Your task to perform on an android device: Open internet settings Image 0: 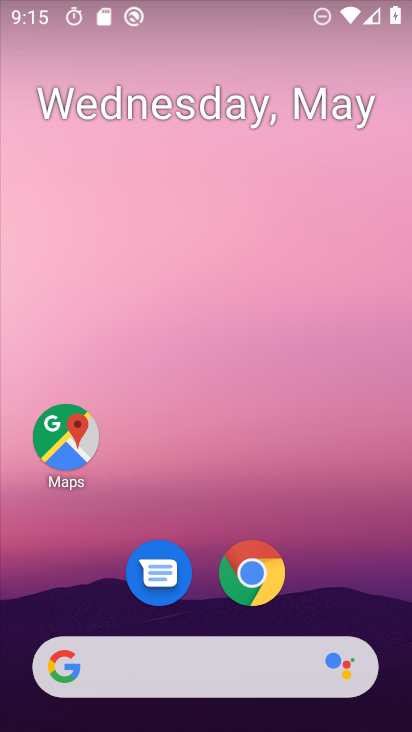
Step 0: click (358, 448)
Your task to perform on an android device: Open internet settings Image 1: 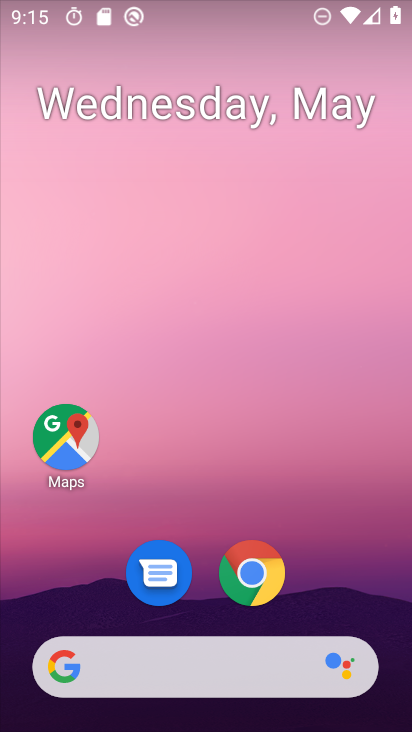
Step 1: drag from (381, 630) to (319, 300)
Your task to perform on an android device: Open internet settings Image 2: 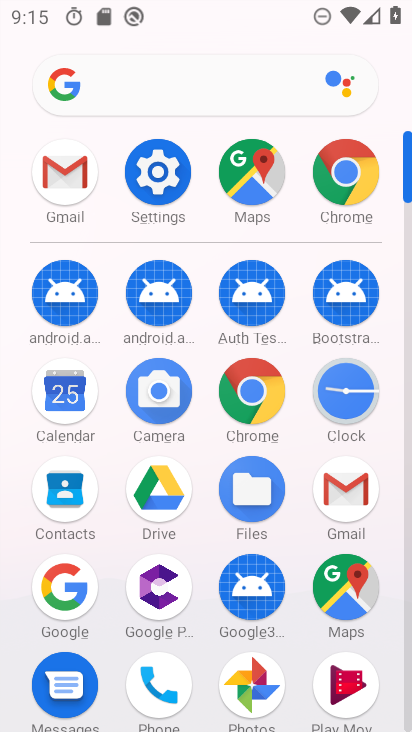
Step 2: click (175, 179)
Your task to perform on an android device: Open internet settings Image 3: 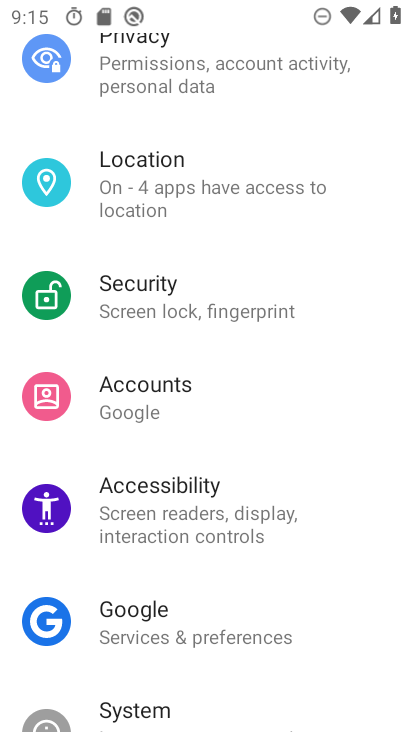
Step 3: drag from (341, 136) to (403, 572)
Your task to perform on an android device: Open internet settings Image 4: 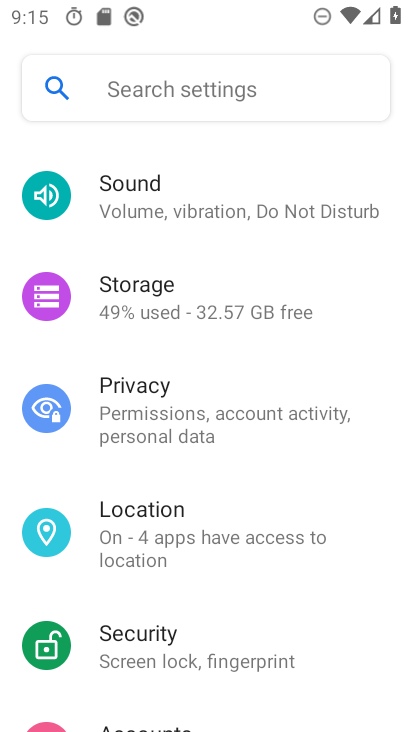
Step 4: drag from (284, 167) to (343, 665)
Your task to perform on an android device: Open internet settings Image 5: 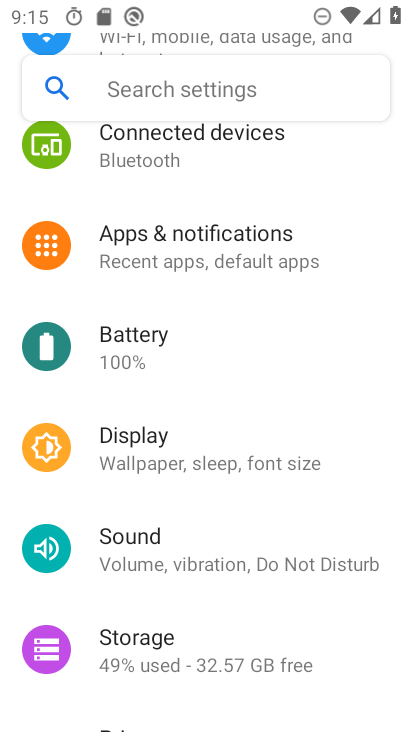
Step 5: drag from (339, 247) to (411, 697)
Your task to perform on an android device: Open internet settings Image 6: 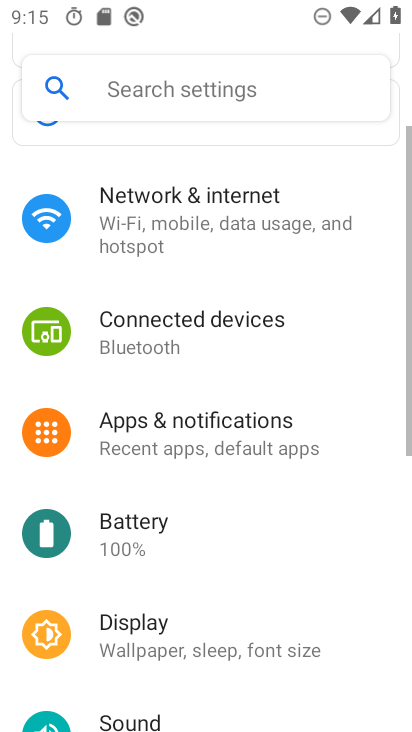
Step 6: click (153, 194)
Your task to perform on an android device: Open internet settings Image 7: 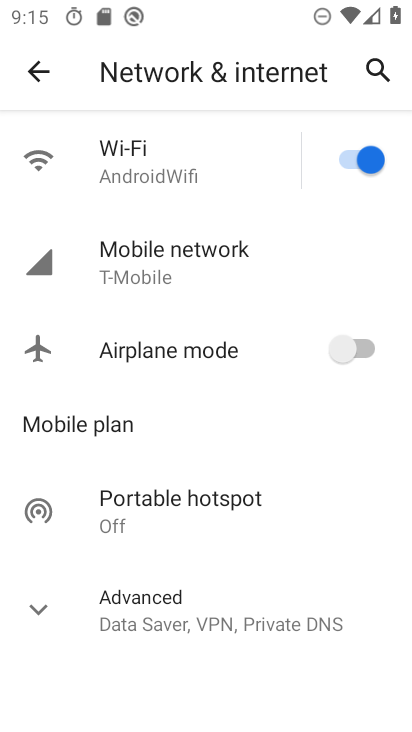
Step 7: click (151, 277)
Your task to perform on an android device: Open internet settings Image 8: 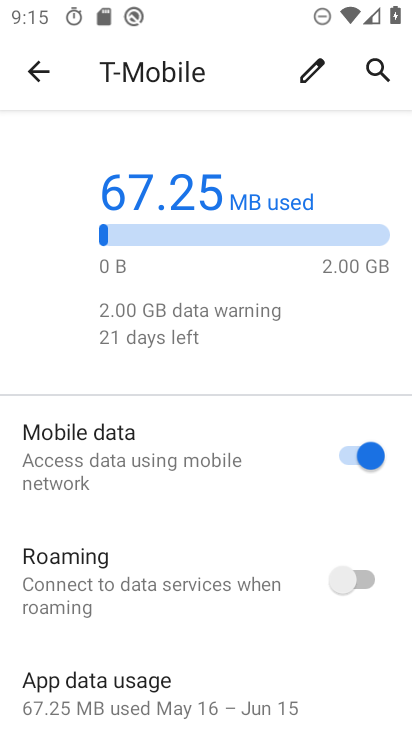
Step 8: drag from (202, 642) to (182, 309)
Your task to perform on an android device: Open internet settings Image 9: 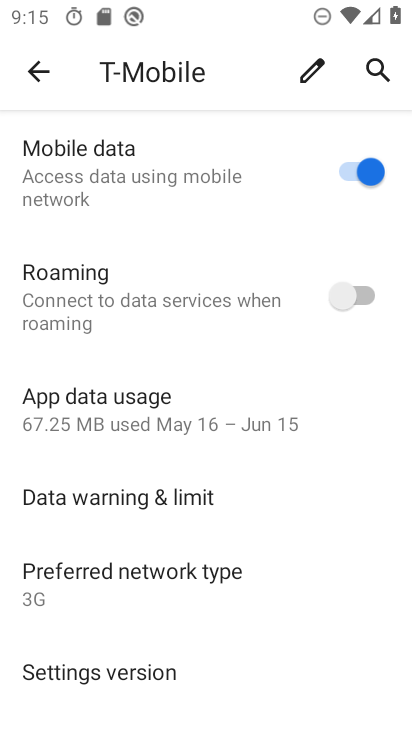
Step 9: drag from (257, 665) to (256, 320)
Your task to perform on an android device: Open internet settings Image 10: 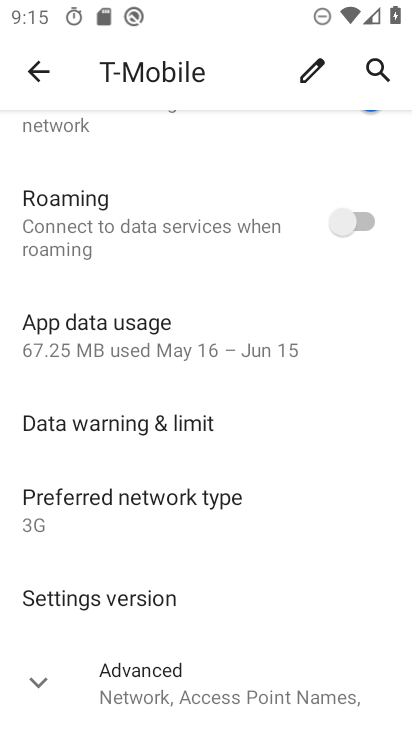
Step 10: drag from (243, 564) to (225, 372)
Your task to perform on an android device: Open internet settings Image 11: 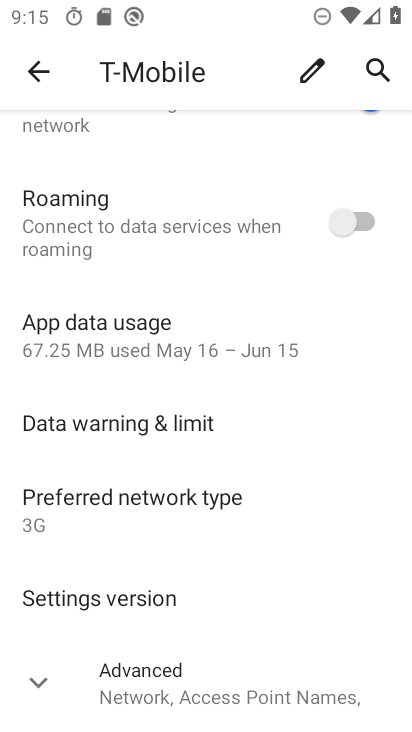
Step 11: click (45, 686)
Your task to perform on an android device: Open internet settings Image 12: 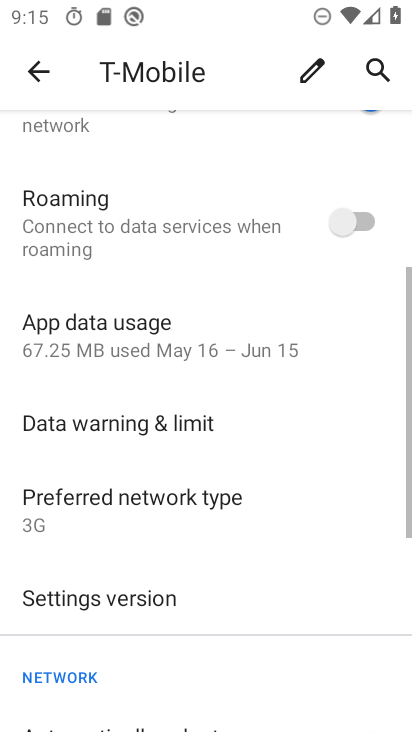
Step 12: task complete